Your task to perform on an android device: turn on showing notifications on the lock screen Image 0: 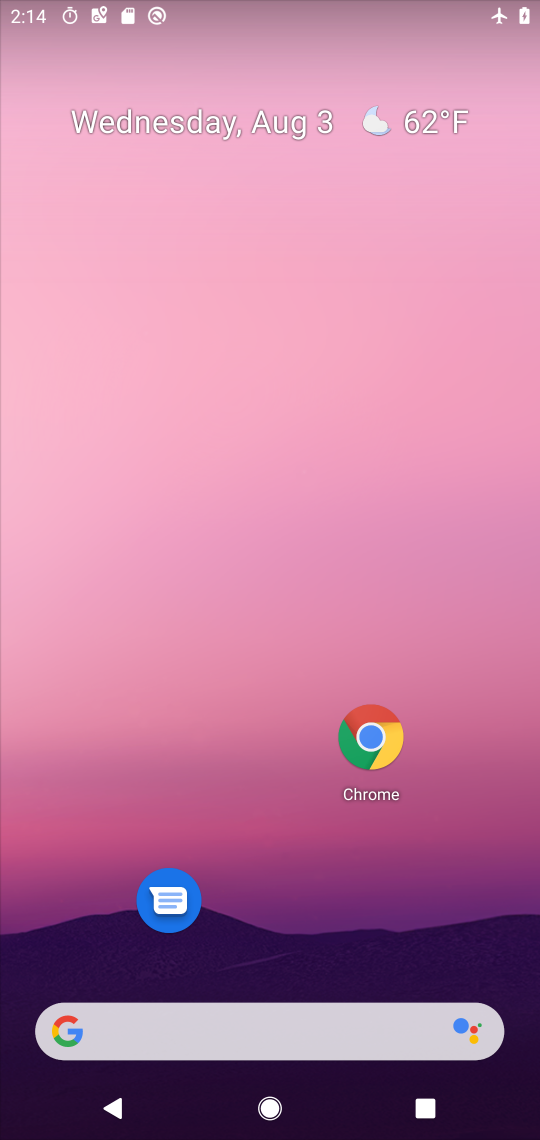
Step 0: drag from (277, 705) to (285, 5)
Your task to perform on an android device: turn on showing notifications on the lock screen Image 1: 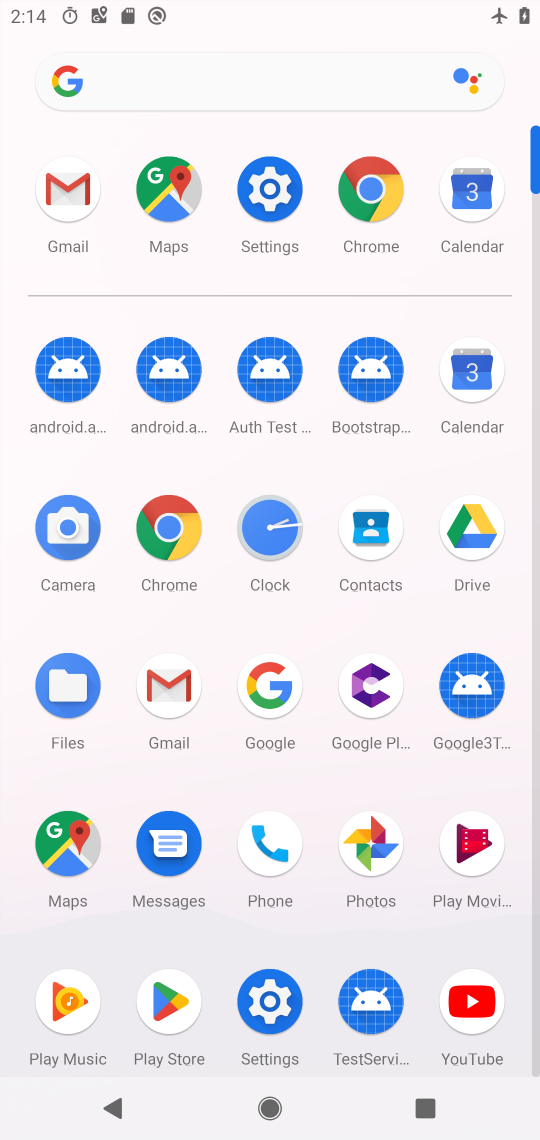
Step 1: click (263, 185)
Your task to perform on an android device: turn on showing notifications on the lock screen Image 2: 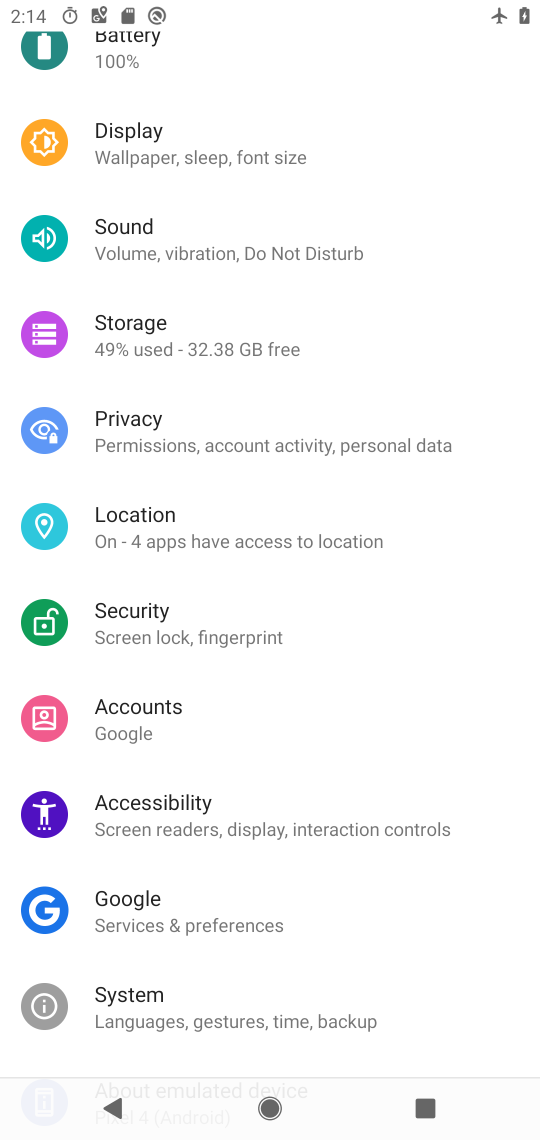
Step 2: drag from (370, 357) to (305, 1018)
Your task to perform on an android device: turn on showing notifications on the lock screen Image 3: 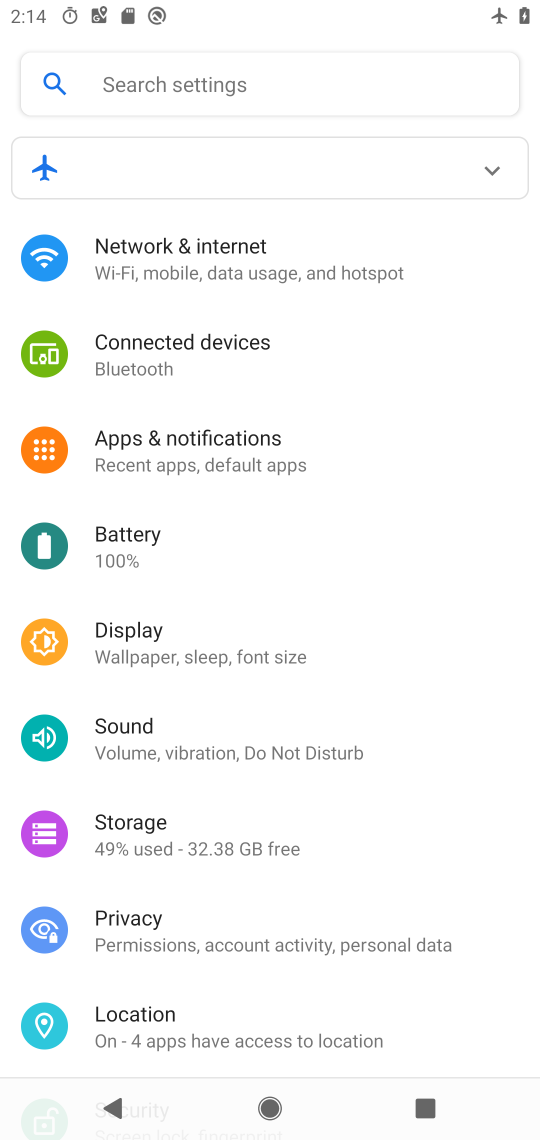
Step 3: click (217, 440)
Your task to perform on an android device: turn on showing notifications on the lock screen Image 4: 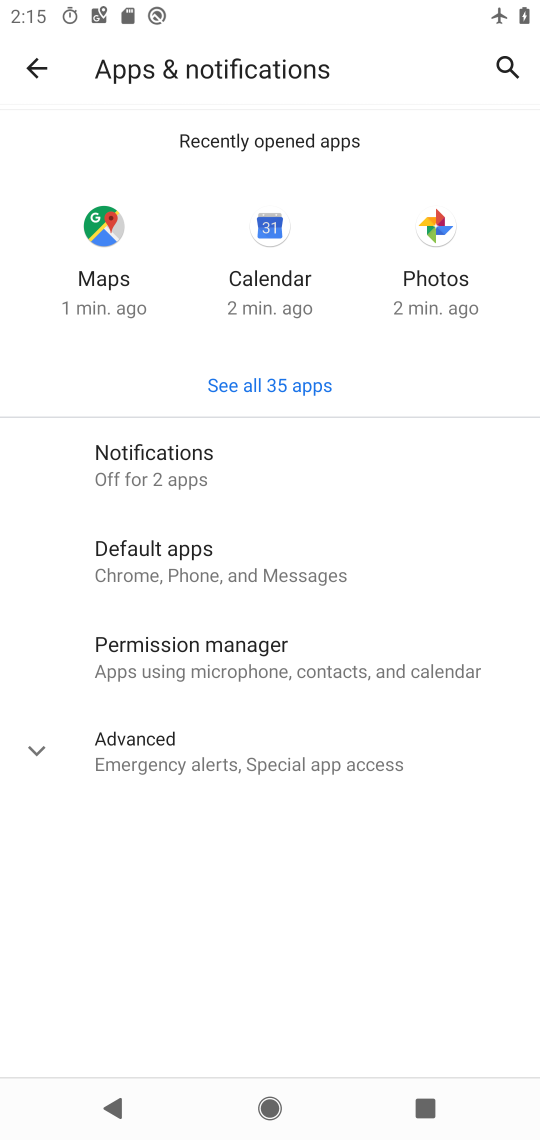
Step 4: click (215, 458)
Your task to perform on an android device: turn on showing notifications on the lock screen Image 5: 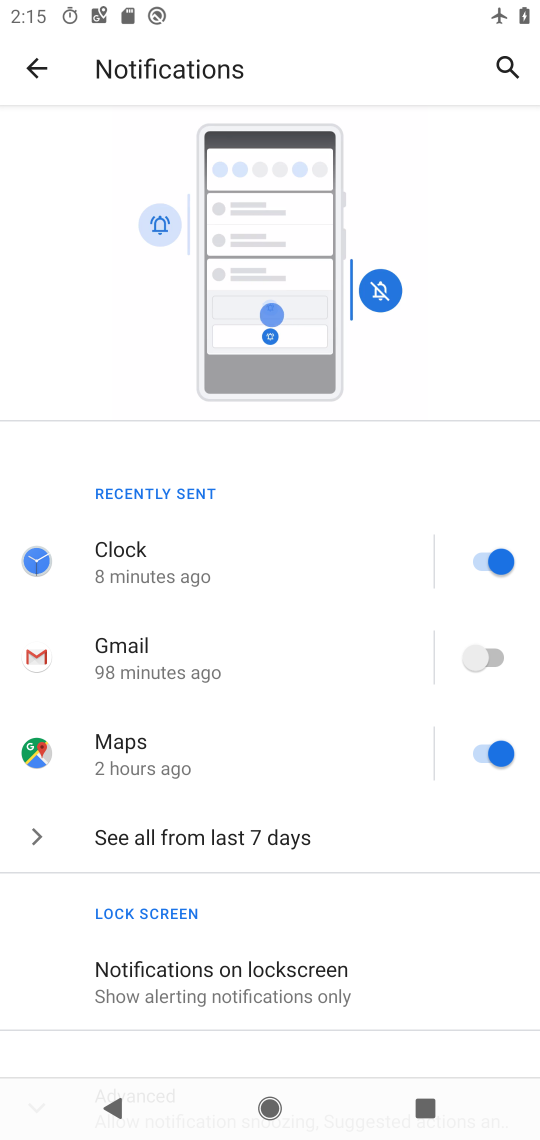
Step 5: click (263, 962)
Your task to perform on an android device: turn on showing notifications on the lock screen Image 6: 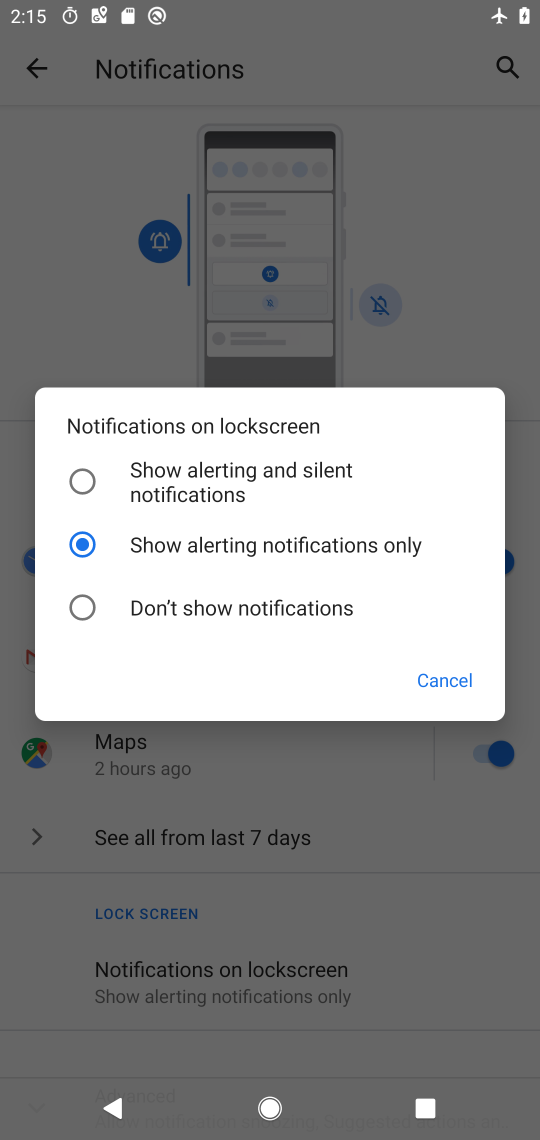
Step 6: task complete